Your task to perform on an android device: choose inbox layout in the gmail app Image 0: 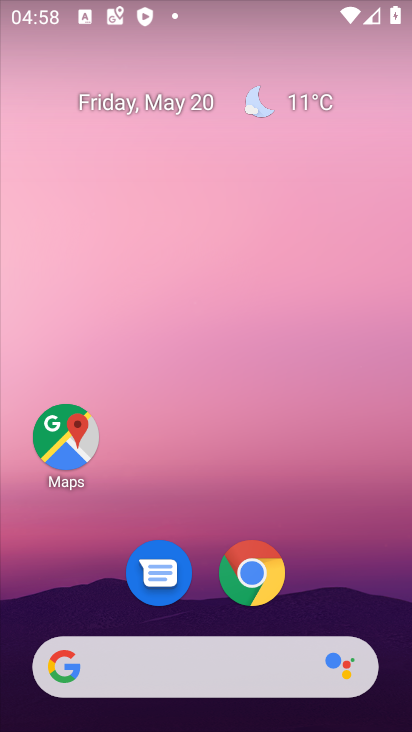
Step 0: drag from (382, 610) to (321, 24)
Your task to perform on an android device: choose inbox layout in the gmail app Image 1: 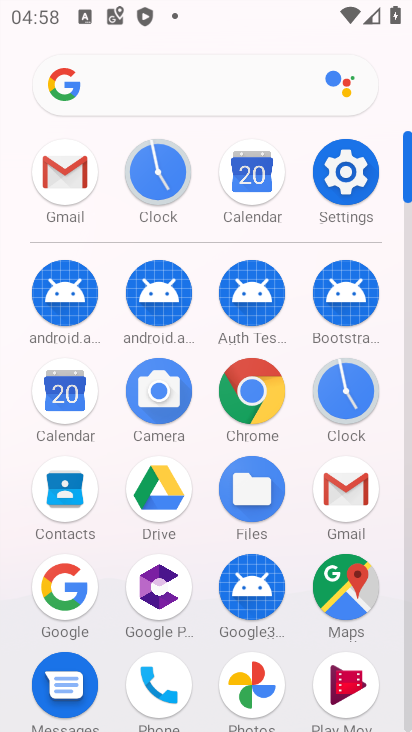
Step 1: click (346, 490)
Your task to perform on an android device: choose inbox layout in the gmail app Image 2: 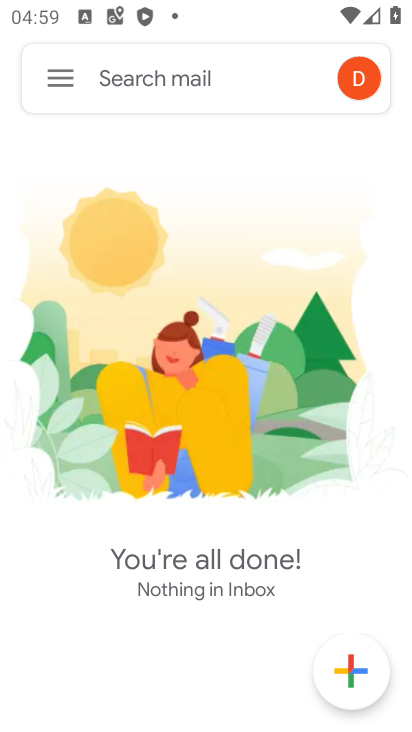
Step 2: click (58, 78)
Your task to perform on an android device: choose inbox layout in the gmail app Image 3: 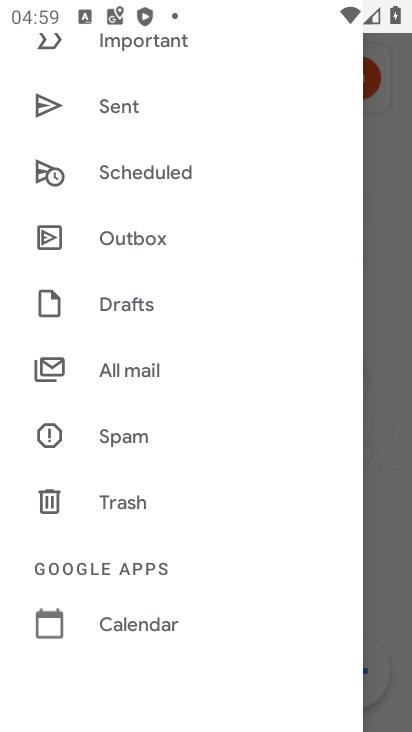
Step 3: drag from (197, 602) to (209, 177)
Your task to perform on an android device: choose inbox layout in the gmail app Image 4: 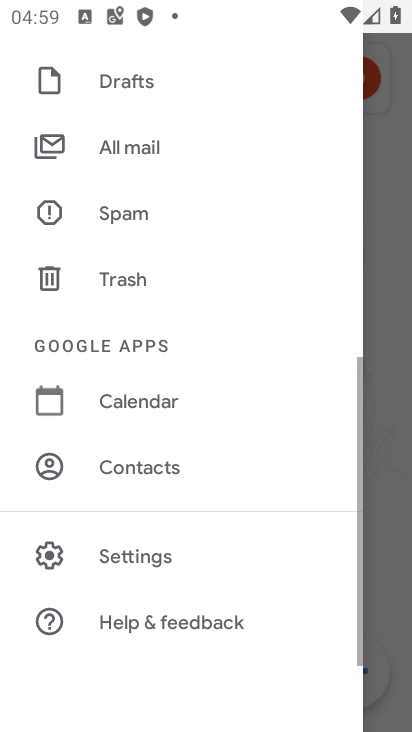
Step 4: click (137, 550)
Your task to perform on an android device: choose inbox layout in the gmail app Image 5: 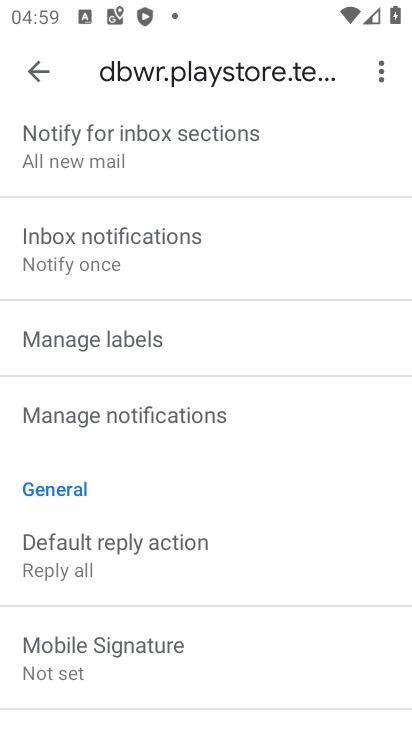
Step 5: drag from (250, 191) to (259, 613)
Your task to perform on an android device: choose inbox layout in the gmail app Image 6: 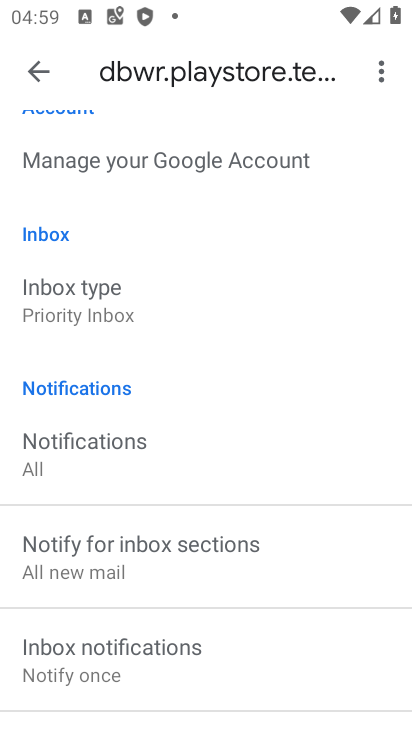
Step 6: click (64, 306)
Your task to perform on an android device: choose inbox layout in the gmail app Image 7: 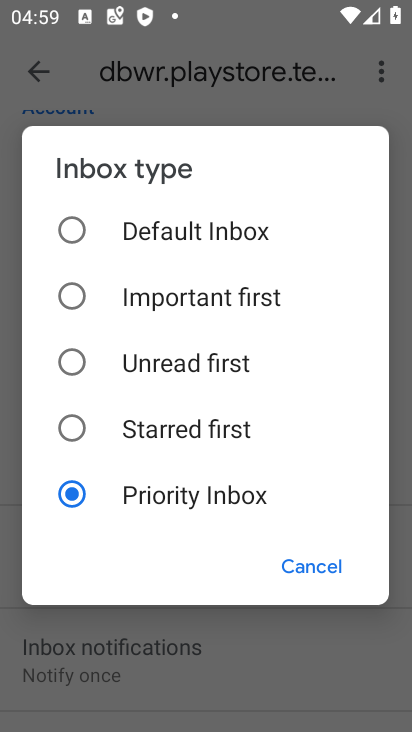
Step 7: click (73, 240)
Your task to perform on an android device: choose inbox layout in the gmail app Image 8: 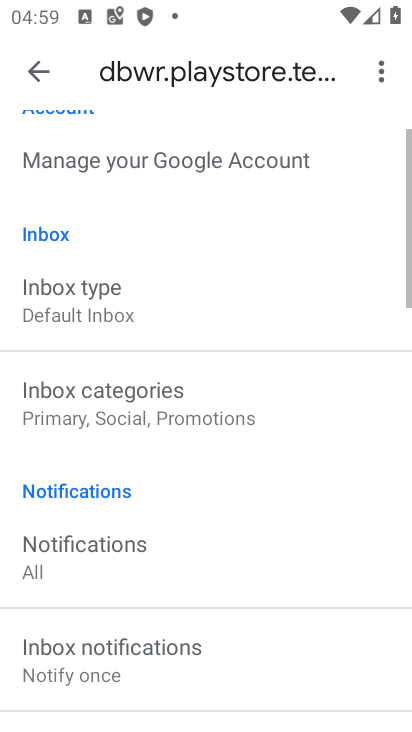
Step 8: task complete